Your task to perform on an android device: change alarm snooze length Image 0: 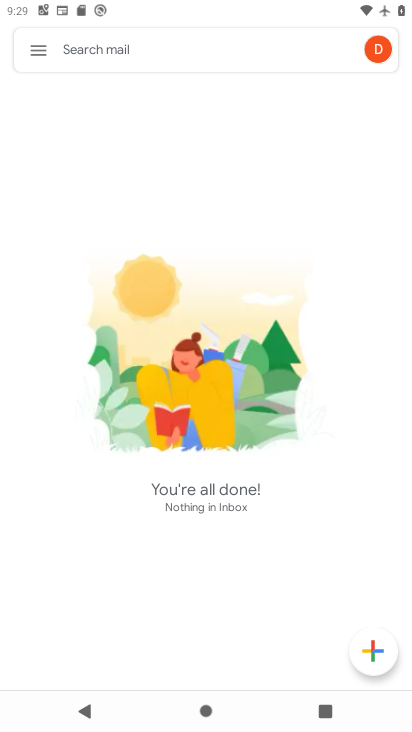
Step 0: press home button
Your task to perform on an android device: change alarm snooze length Image 1: 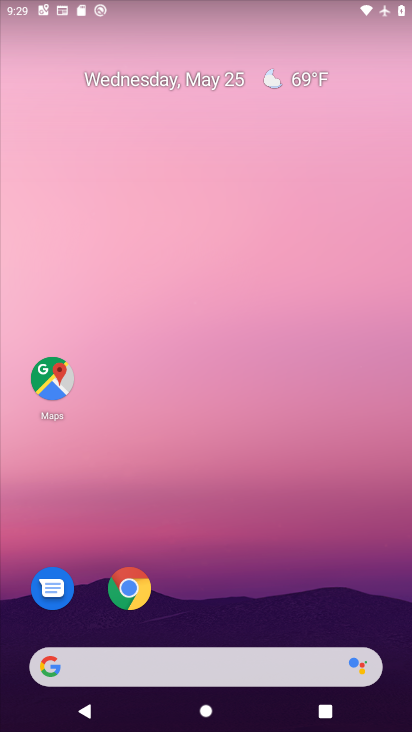
Step 1: drag from (363, 606) to (385, 200)
Your task to perform on an android device: change alarm snooze length Image 2: 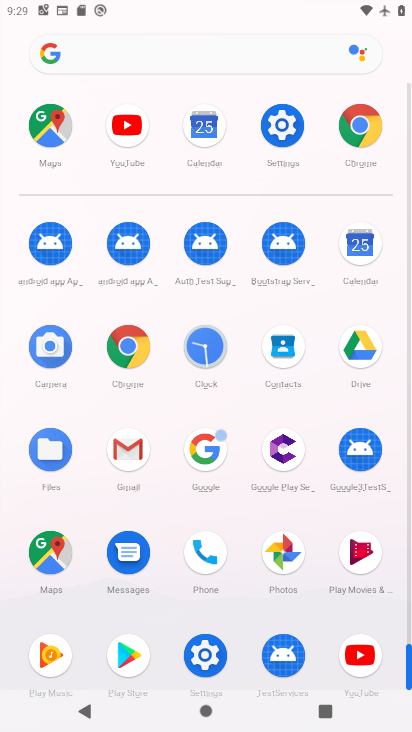
Step 2: click (213, 354)
Your task to perform on an android device: change alarm snooze length Image 3: 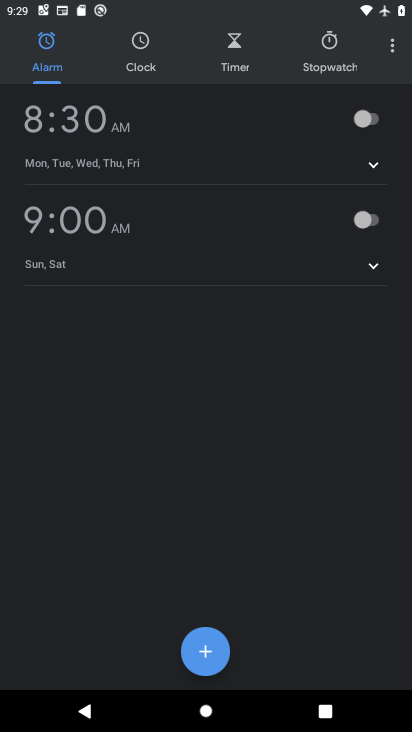
Step 3: click (393, 53)
Your task to perform on an android device: change alarm snooze length Image 4: 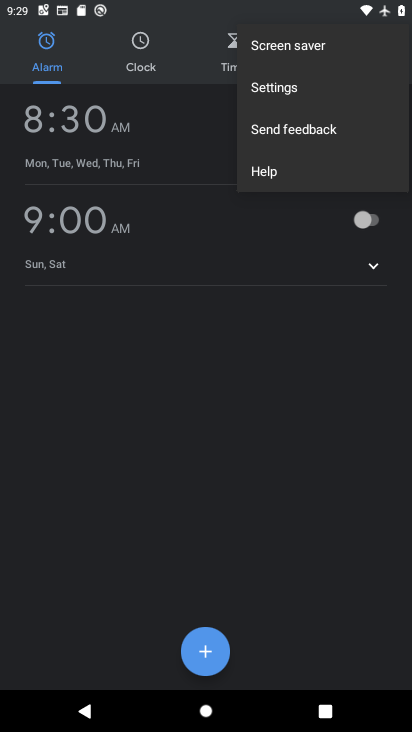
Step 4: click (291, 91)
Your task to perform on an android device: change alarm snooze length Image 5: 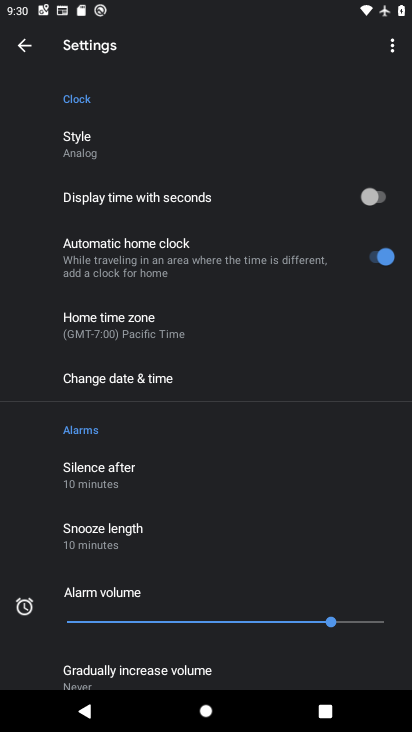
Step 5: drag from (356, 458) to (357, 377)
Your task to perform on an android device: change alarm snooze length Image 6: 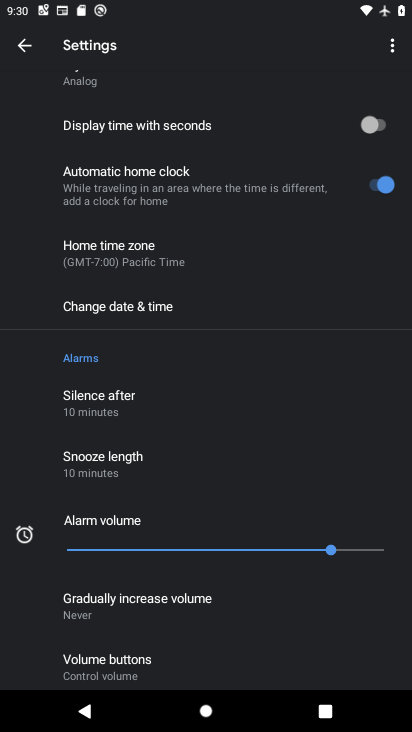
Step 6: drag from (354, 477) to (356, 331)
Your task to perform on an android device: change alarm snooze length Image 7: 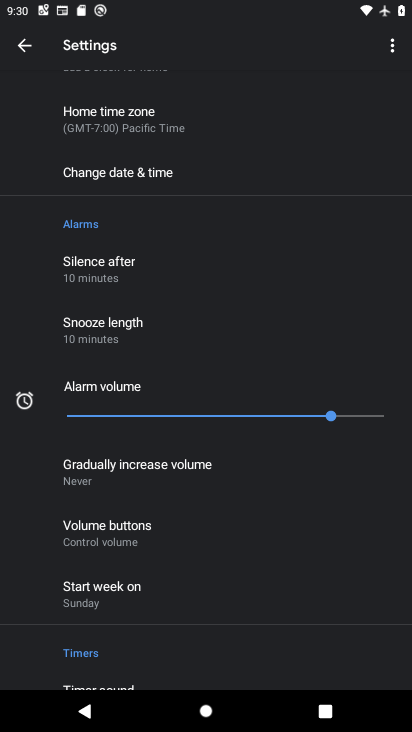
Step 7: drag from (358, 535) to (365, 427)
Your task to perform on an android device: change alarm snooze length Image 8: 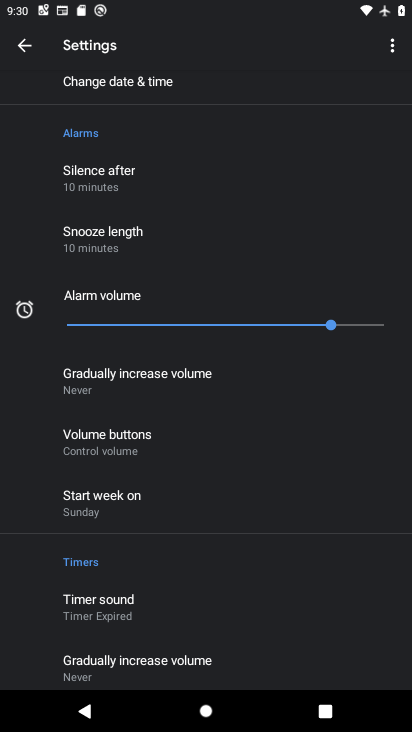
Step 8: drag from (350, 545) to (355, 462)
Your task to perform on an android device: change alarm snooze length Image 9: 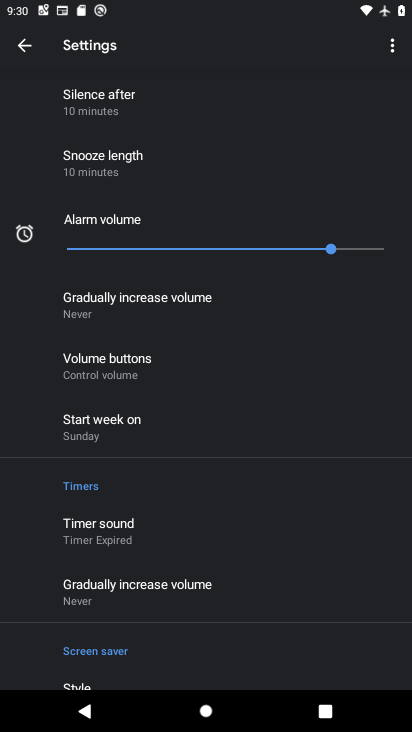
Step 9: drag from (344, 554) to (349, 479)
Your task to perform on an android device: change alarm snooze length Image 10: 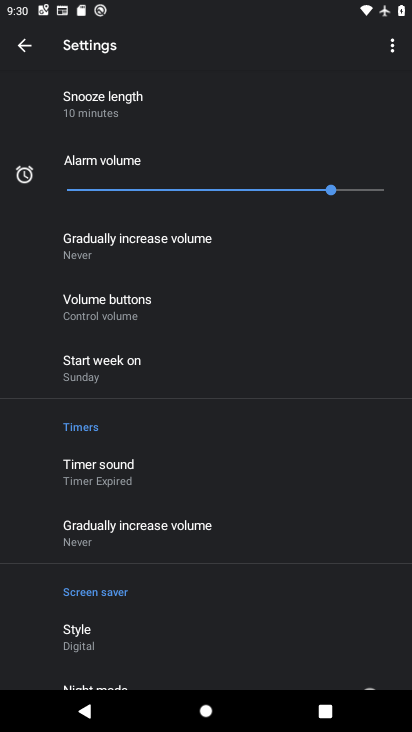
Step 10: drag from (345, 551) to (343, 449)
Your task to perform on an android device: change alarm snooze length Image 11: 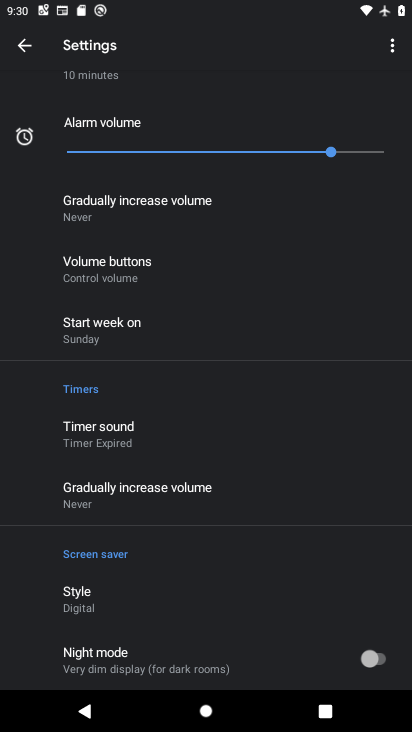
Step 11: drag from (351, 312) to (342, 393)
Your task to perform on an android device: change alarm snooze length Image 12: 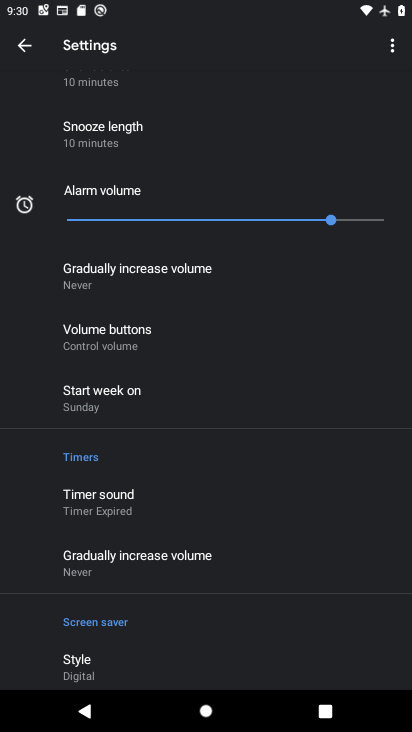
Step 12: drag from (323, 313) to (322, 404)
Your task to perform on an android device: change alarm snooze length Image 13: 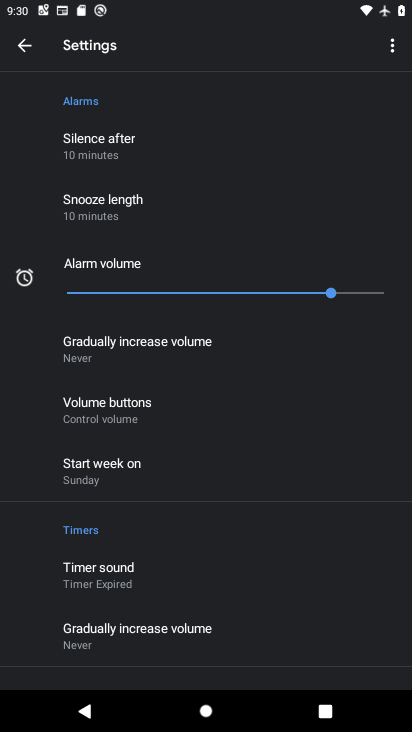
Step 13: drag from (320, 345) to (324, 434)
Your task to perform on an android device: change alarm snooze length Image 14: 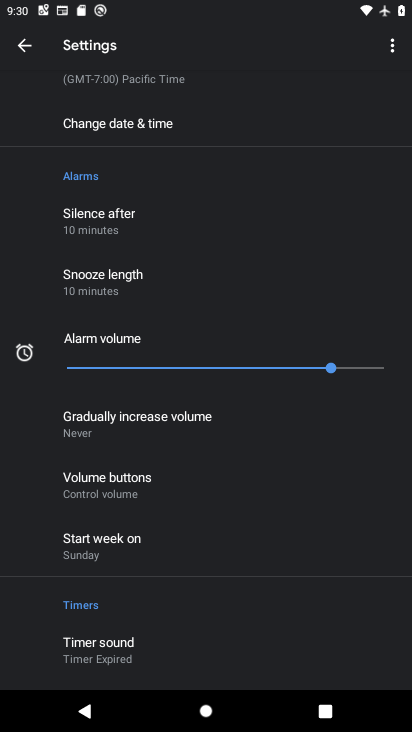
Step 14: drag from (310, 270) to (314, 358)
Your task to perform on an android device: change alarm snooze length Image 15: 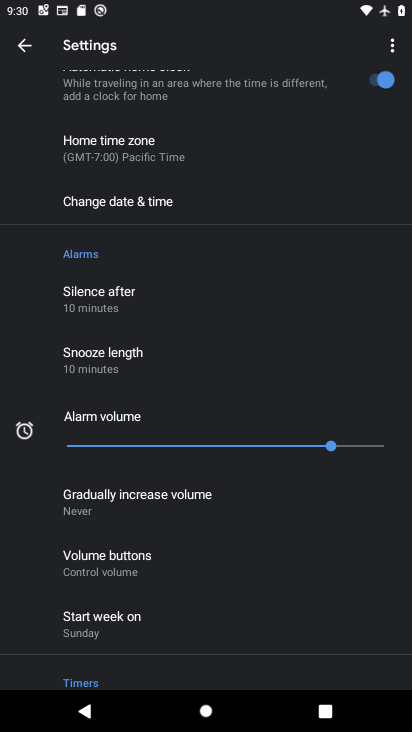
Step 15: click (147, 361)
Your task to perform on an android device: change alarm snooze length Image 16: 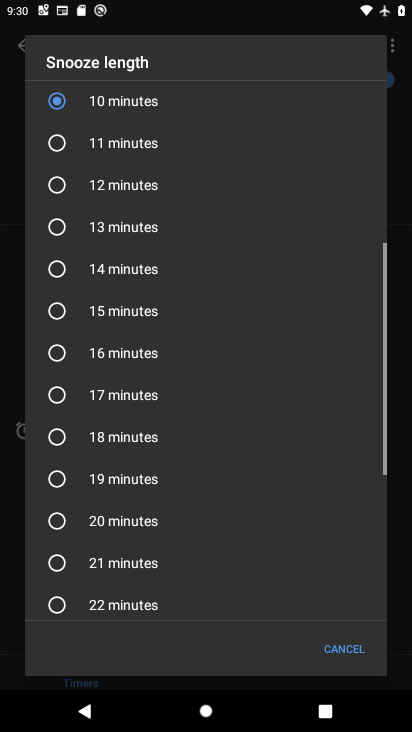
Step 16: click (147, 361)
Your task to perform on an android device: change alarm snooze length Image 17: 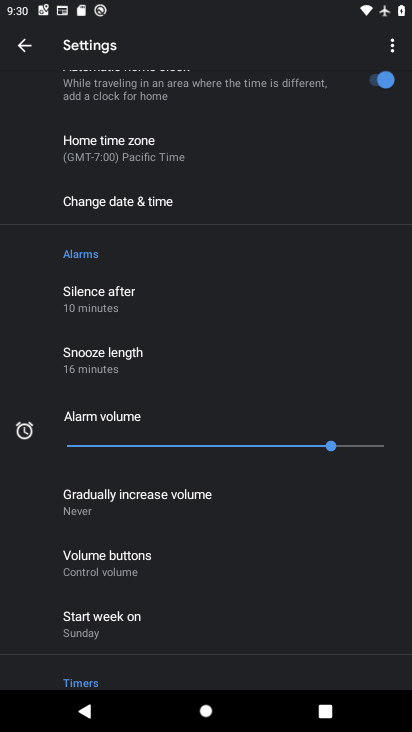
Step 17: task complete